Your task to perform on an android device: When is my next meeting? Image 0: 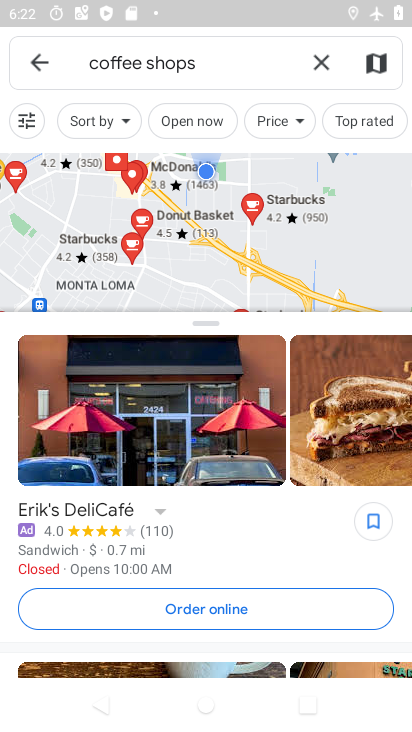
Step 0: press home button
Your task to perform on an android device: When is my next meeting? Image 1: 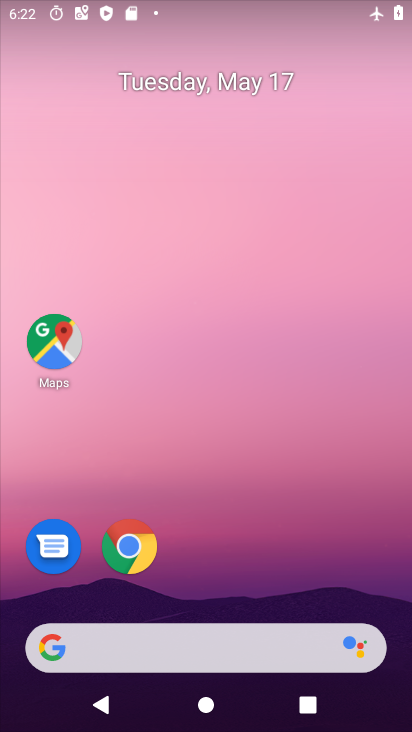
Step 1: drag from (224, 577) to (191, 210)
Your task to perform on an android device: When is my next meeting? Image 2: 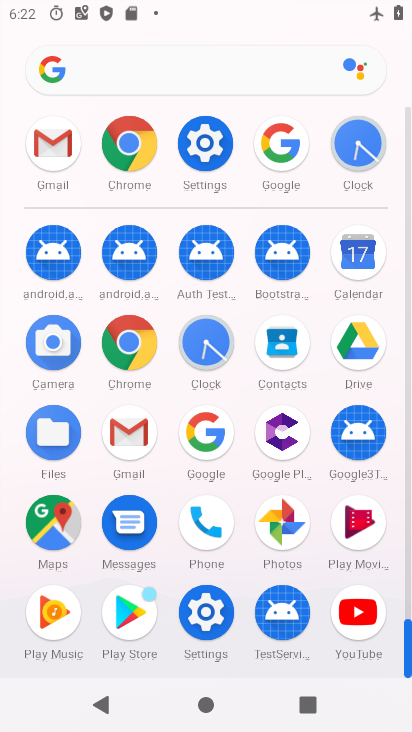
Step 2: click (339, 281)
Your task to perform on an android device: When is my next meeting? Image 3: 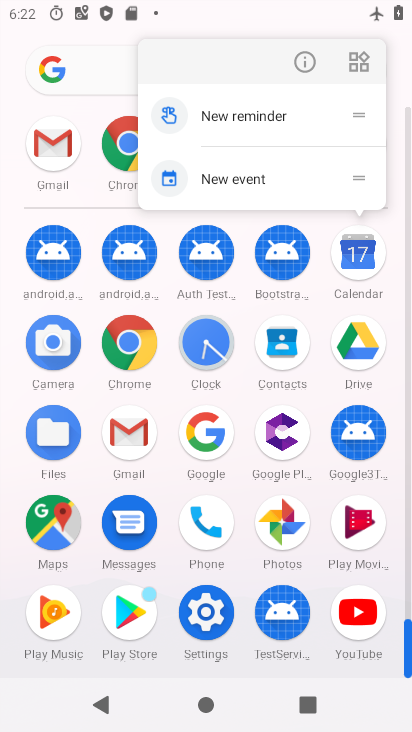
Step 3: click (357, 279)
Your task to perform on an android device: When is my next meeting? Image 4: 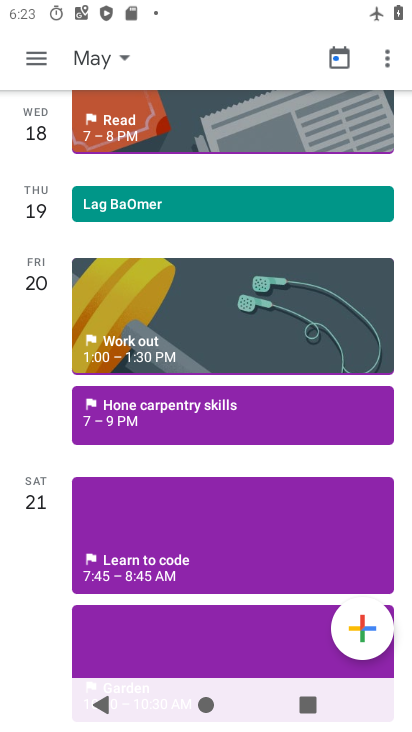
Step 4: click (93, 72)
Your task to perform on an android device: When is my next meeting? Image 5: 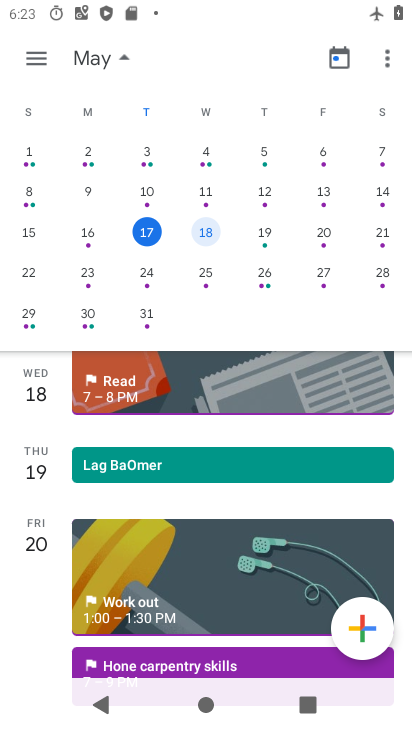
Step 5: drag from (251, 173) to (10, 160)
Your task to perform on an android device: When is my next meeting? Image 6: 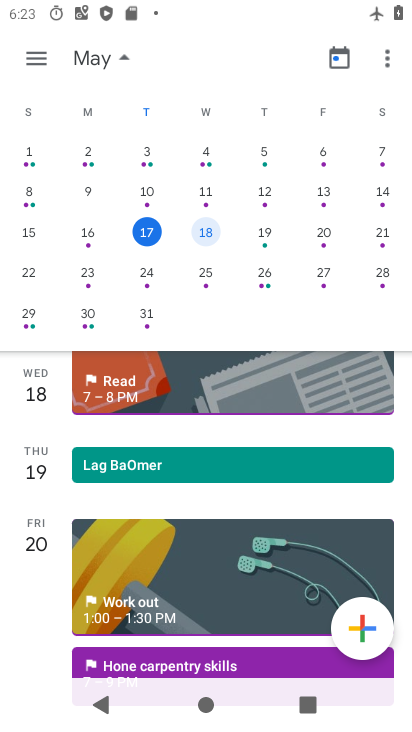
Step 6: drag from (362, 205) to (25, 195)
Your task to perform on an android device: When is my next meeting? Image 7: 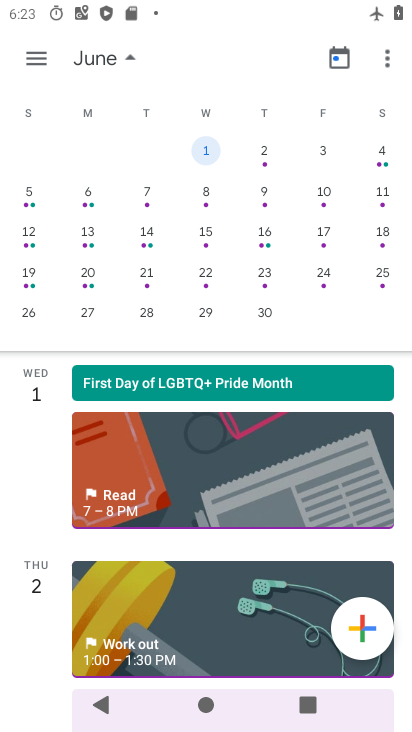
Step 7: click (89, 196)
Your task to perform on an android device: When is my next meeting? Image 8: 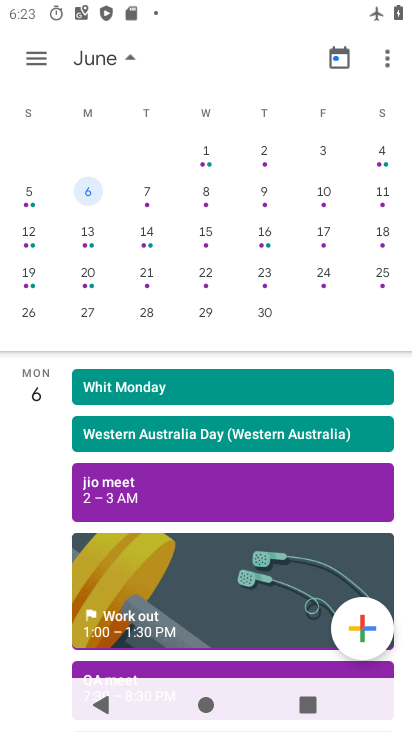
Step 8: task complete